Your task to perform on an android device: What is the recent news? Image 0: 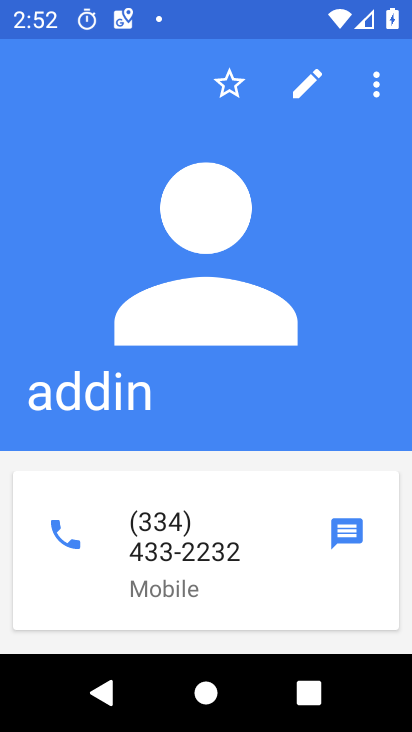
Step 0: press home button
Your task to perform on an android device: What is the recent news? Image 1: 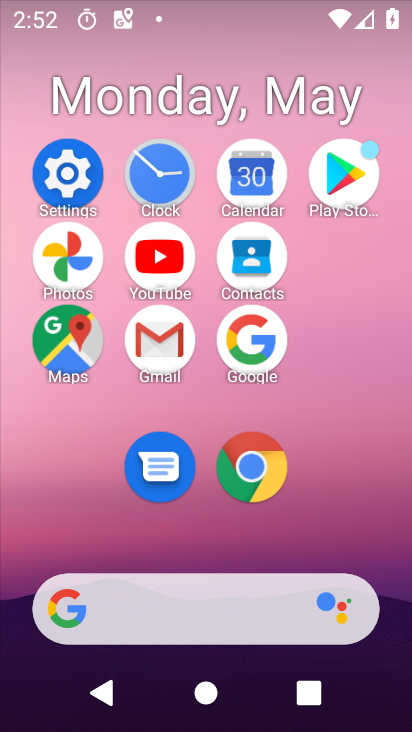
Step 1: click (263, 339)
Your task to perform on an android device: What is the recent news? Image 2: 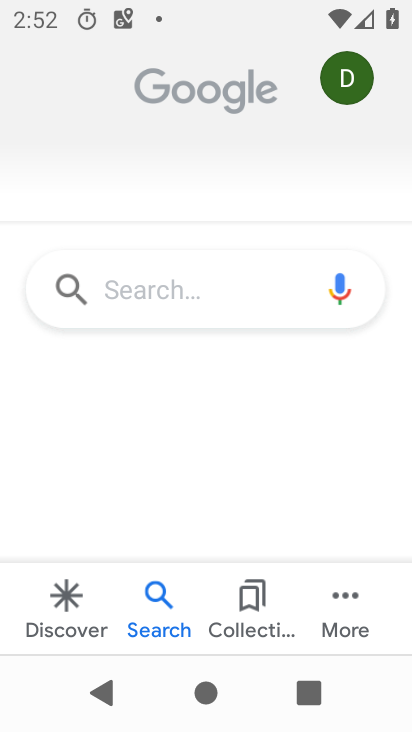
Step 2: click (211, 302)
Your task to perform on an android device: What is the recent news? Image 3: 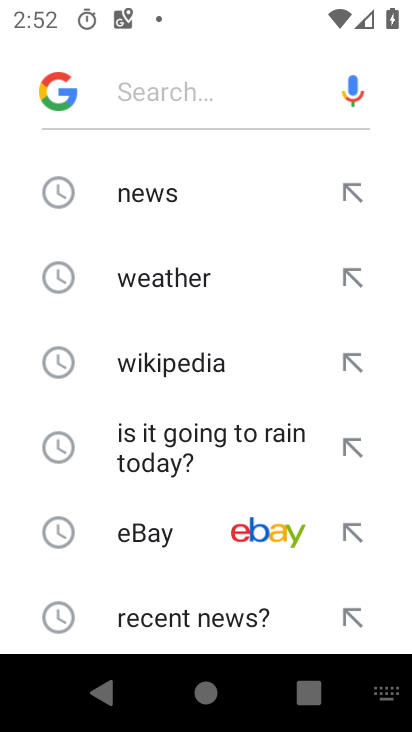
Step 3: drag from (187, 480) to (184, 183)
Your task to perform on an android device: What is the recent news? Image 4: 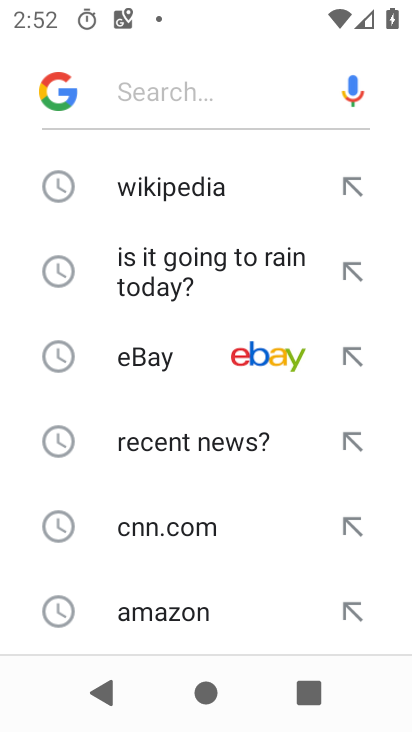
Step 4: click (189, 446)
Your task to perform on an android device: What is the recent news? Image 5: 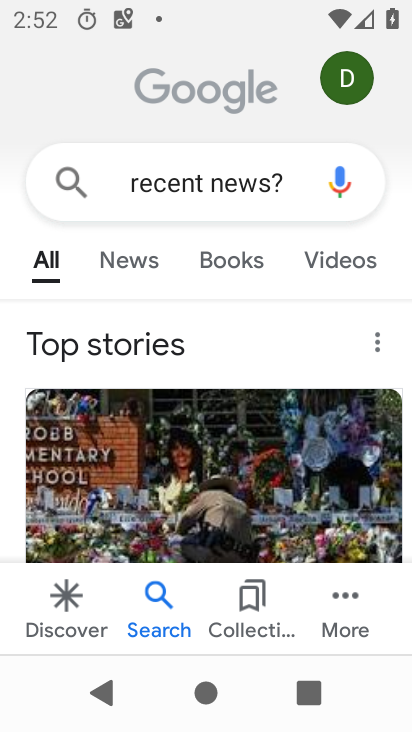
Step 5: task complete